Your task to perform on an android device: What's on my calendar today? Image 0: 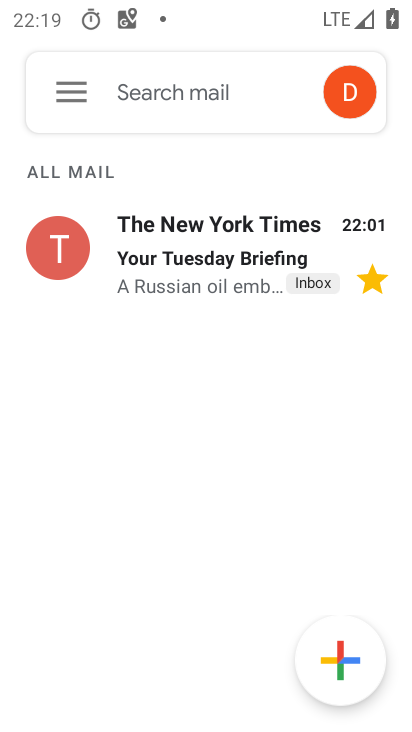
Step 0: press home button
Your task to perform on an android device: What's on my calendar today? Image 1: 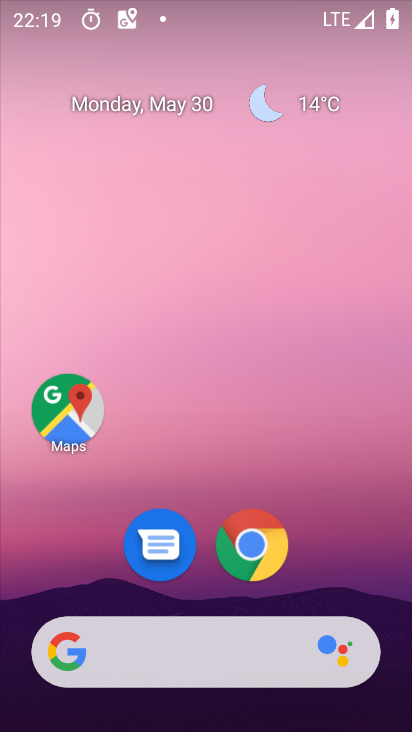
Step 1: click (157, 107)
Your task to perform on an android device: What's on my calendar today? Image 2: 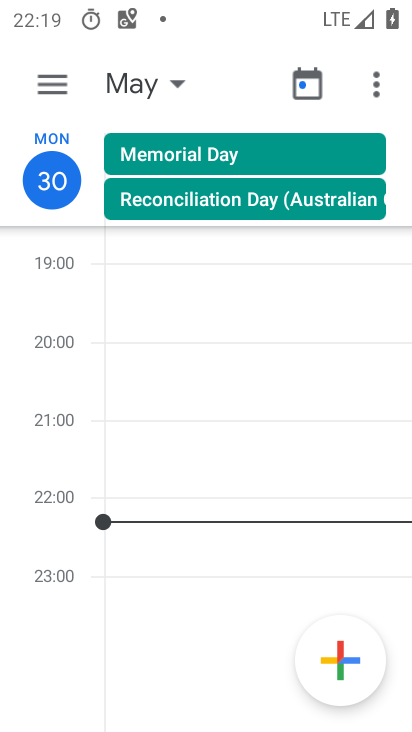
Step 2: click (54, 88)
Your task to perform on an android device: What's on my calendar today? Image 3: 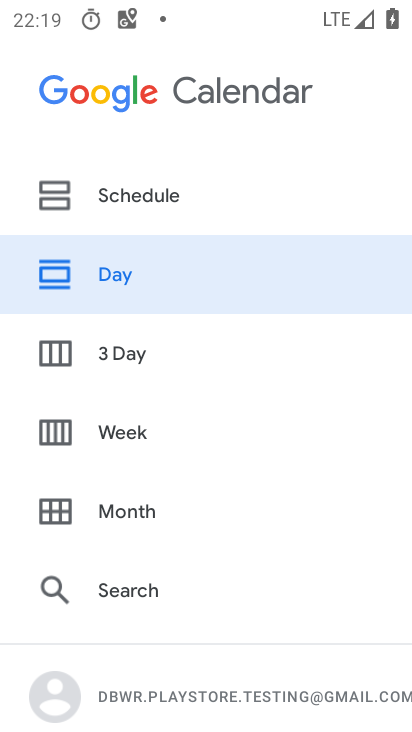
Step 3: click (179, 196)
Your task to perform on an android device: What's on my calendar today? Image 4: 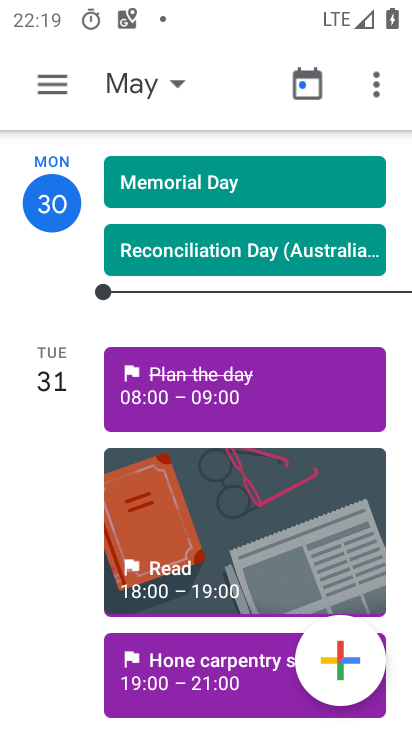
Step 4: task complete